Your task to perform on an android device: turn on javascript in the chrome app Image 0: 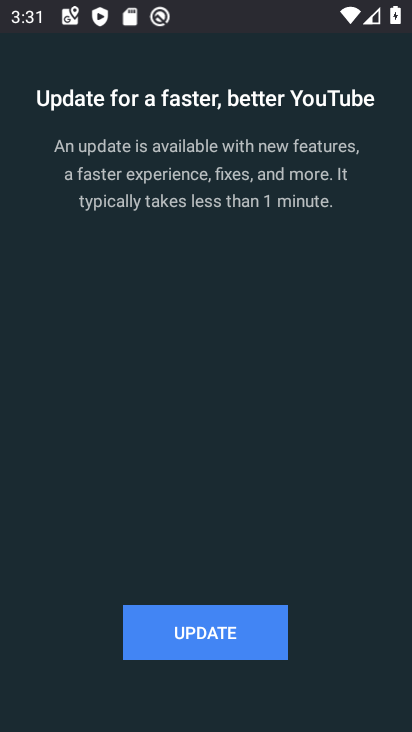
Step 0: press home button
Your task to perform on an android device: turn on javascript in the chrome app Image 1: 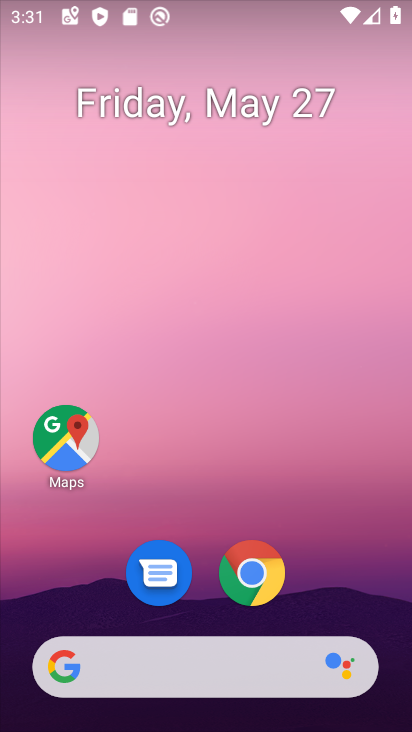
Step 1: drag from (214, 514) to (233, 437)
Your task to perform on an android device: turn on javascript in the chrome app Image 2: 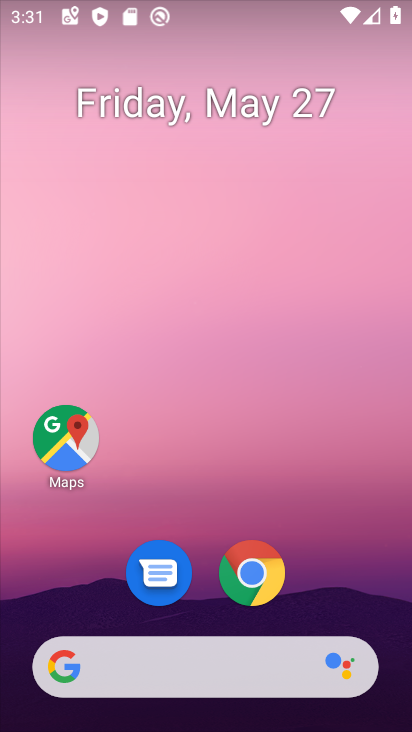
Step 2: click (259, 578)
Your task to perform on an android device: turn on javascript in the chrome app Image 3: 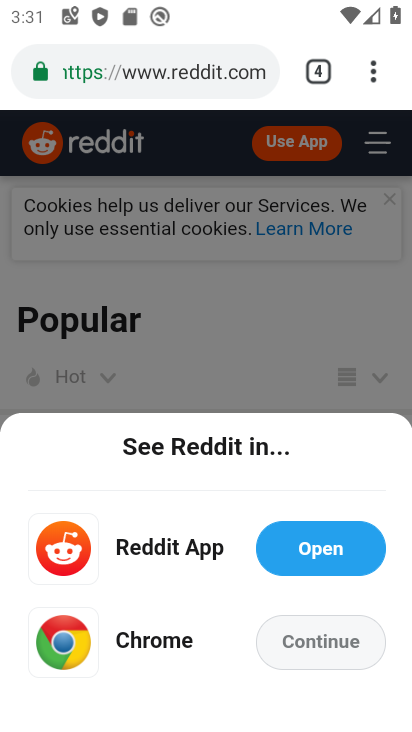
Step 3: click (373, 78)
Your task to perform on an android device: turn on javascript in the chrome app Image 4: 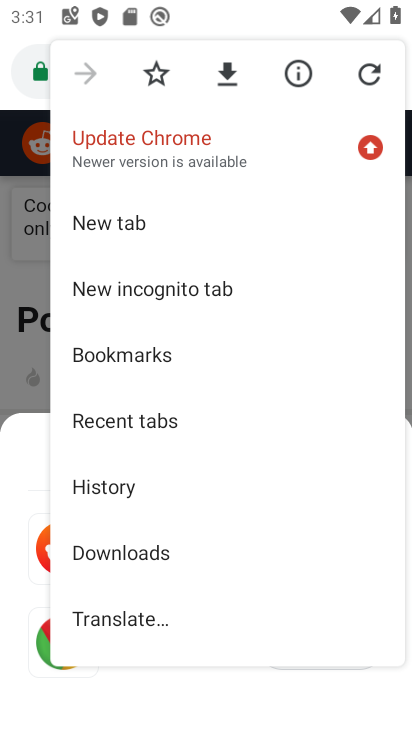
Step 4: drag from (248, 539) to (224, 139)
Your task to perform on an android device: turn on javascript in the chrome app Image 5: 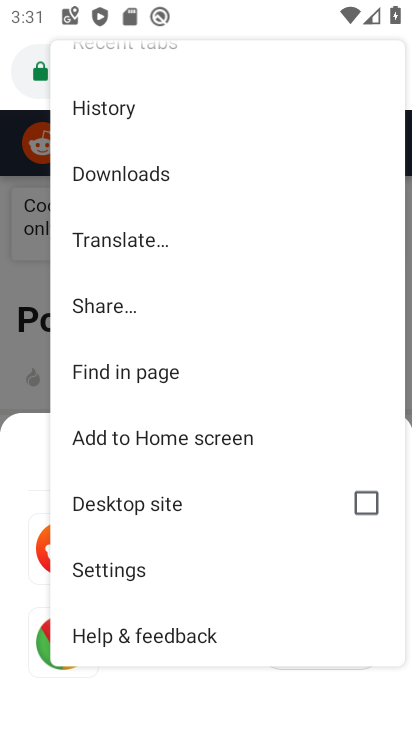
Step 5: click (162, 560)
Your task to perform on an android device: turn on javascript in the chrome app Image 6: 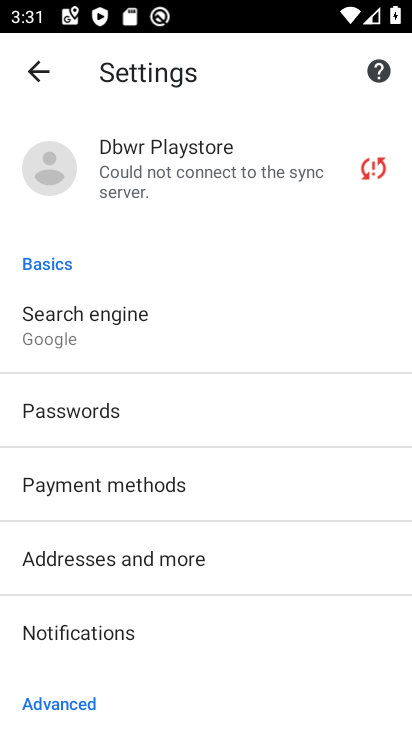
Step 6: drag from (255, 540) to (235, 155)
Your task to perform on an android device: turn on javascript in the chrome app Image 7: 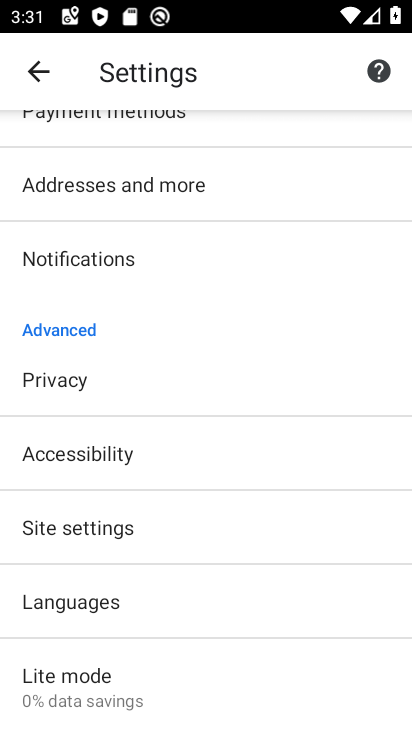
Step 7: click (120, 523)
Your task to perform on an android device: turn on javascript in the chrome app Image 8: 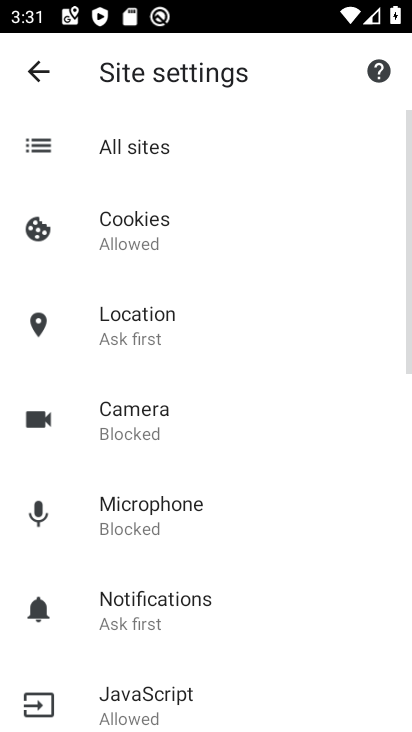
Step 8: drag from (269, 593) to (272, 344)
Your task to perform on an android device: turn on javascript in the chrome app Image 9: 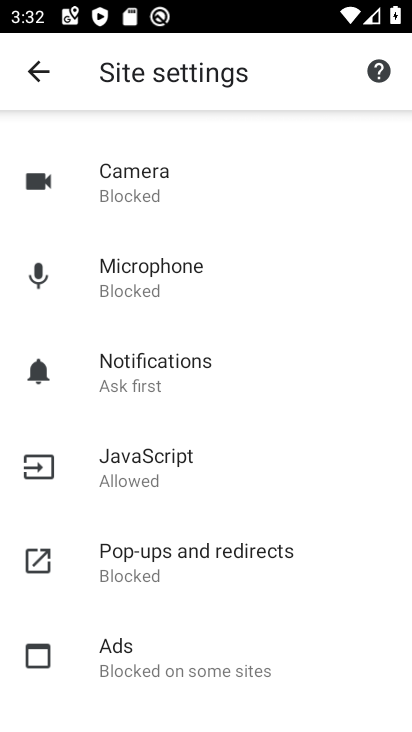
Step 9: click (239, 468)
Your task to perform on an android device: turn on javascript in the chrome app Image 10: 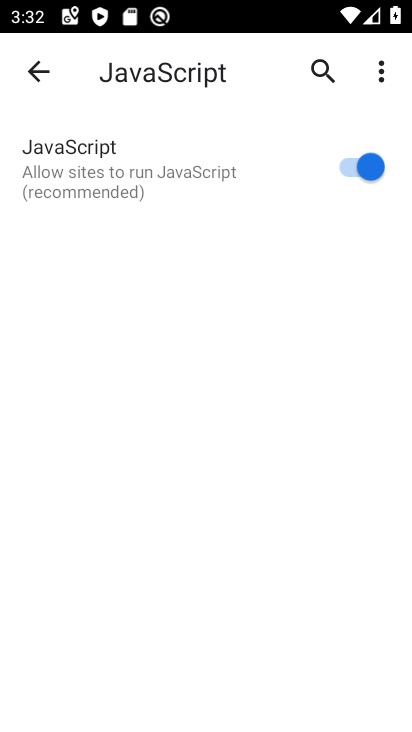
Step 10: task complete